Your task to perform on an android device: What's on my calendar tomorrow? Image 0: 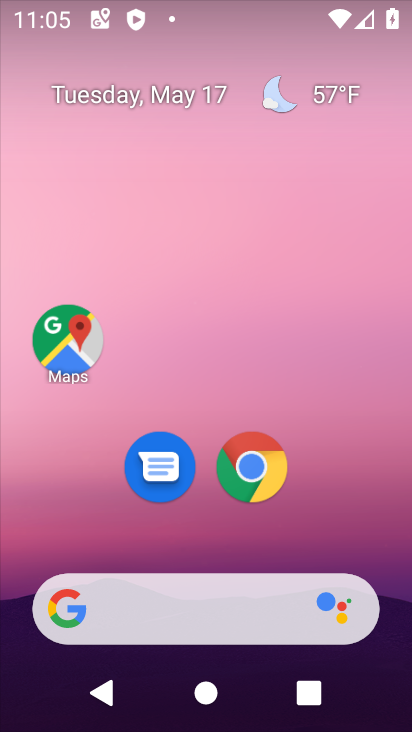
Step 0: drag from (290, 654) to (376, 96)
Your task to perform on an android device: What's on my calendar tomorrow? Image 1: 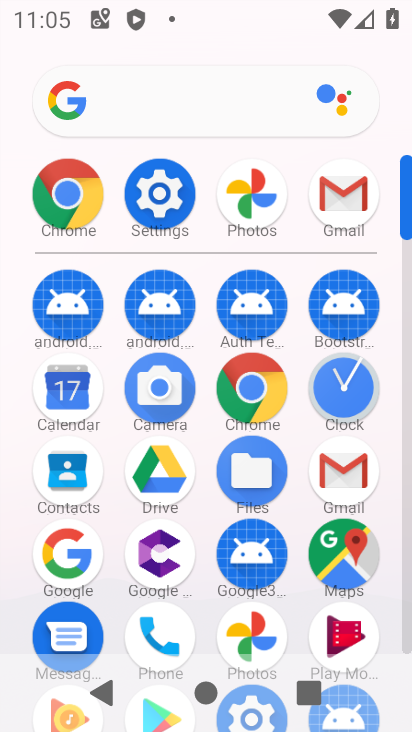
Step 1: click (74, 402)
Your task to perform on an android device: What's on my calendar tomorrow? Image 2: 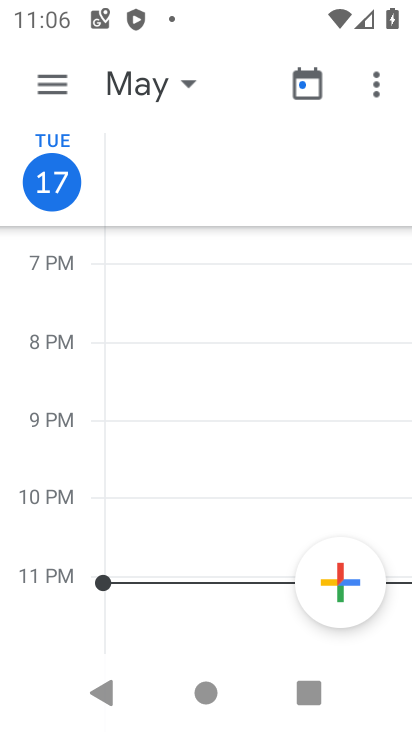
Step 2: click (49, 93)
Your task to perform on an android device: What's on my calendar tomorrow? Image 3: 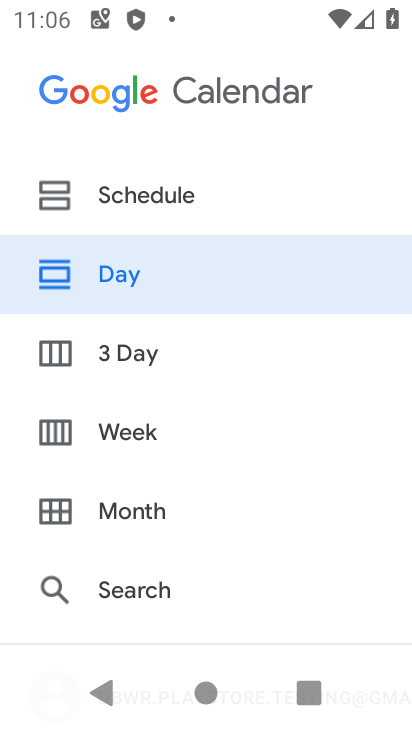
Step 3: click (111, 351)
Your task to perform on an android device: What's on my calendar tomorrow? Image 4: 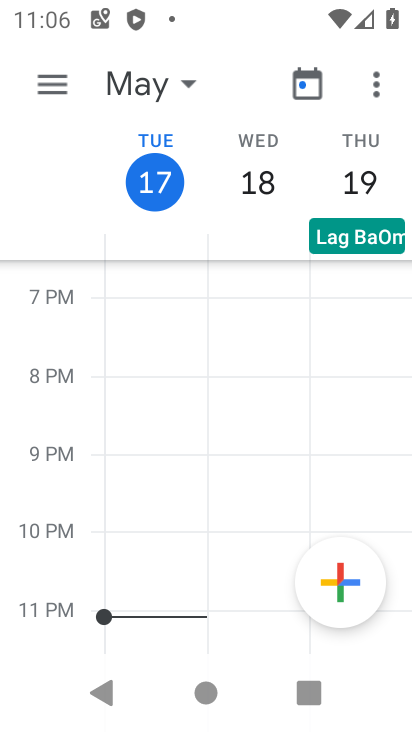
Step 4: click (243, 202)
Your task to perform on an android device: What's on my calendar tomorrow? Image 5: 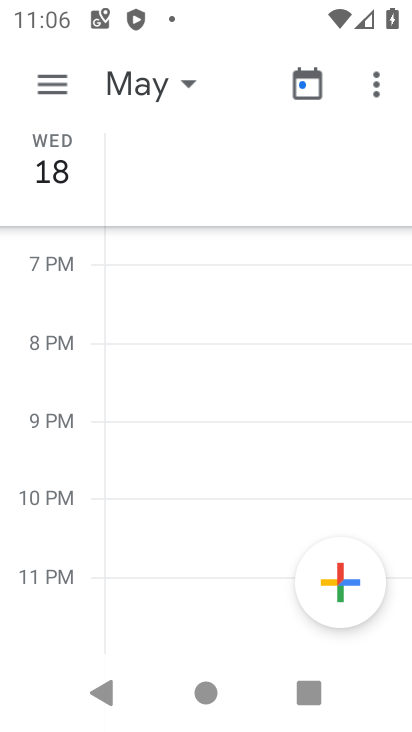
Step 5: click (61, 176)
Your task to perform on an android device: What's on my calendar tomorrow? Image 6: 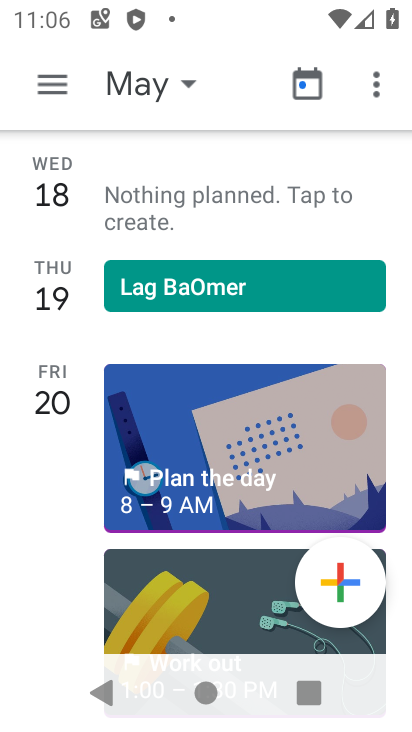
Step 6: task complete